Your task to perform on an android device: toggle javascript in the chrome app Image 0: 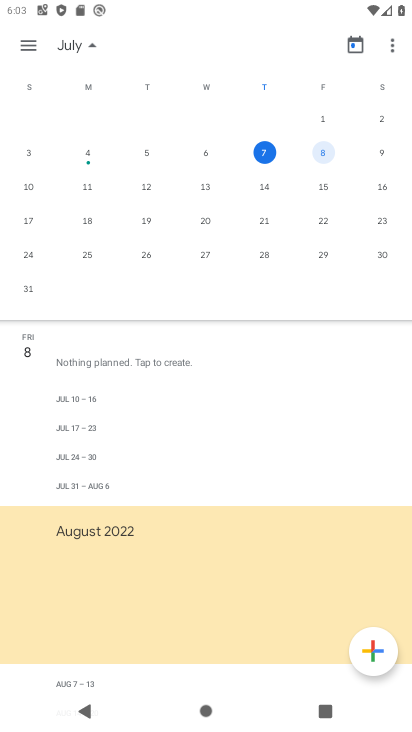
Step 0: press back button
Your task to perform on an android device: toggle javascript in the chrome app Image 1: 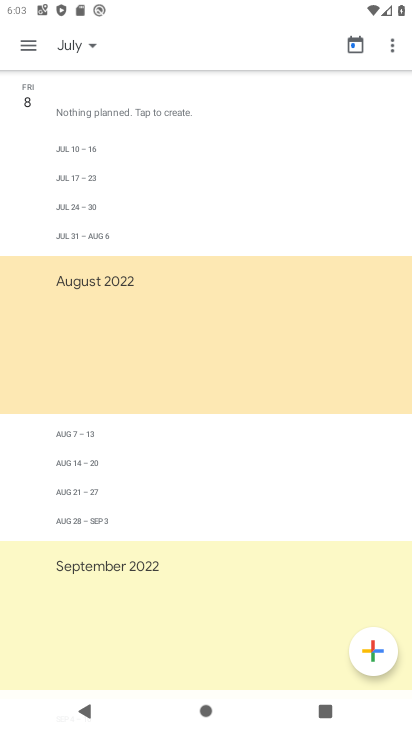
Step 1: press back button
Your task to perform on an android device: toggle javascript in the chrome app Image 2: 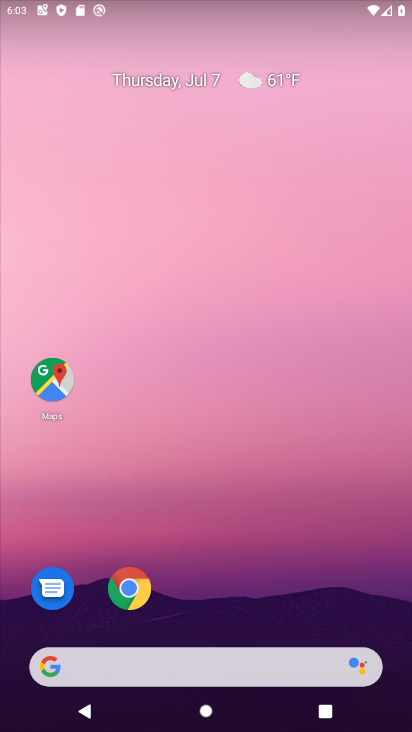
Step 2: click (144, 587)
Your task to perform on an android device: toggle javascript in the chrome app Image 3: 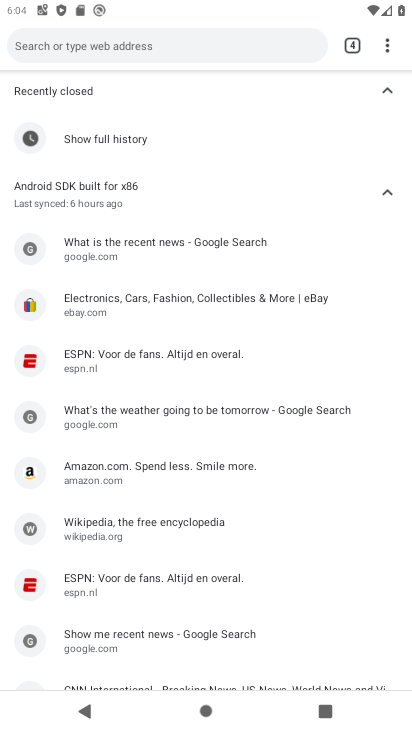
Step 3: drag from (390, 30) to (223, 380)
Your task to perform on an android device: toggle javascript in the chrome app Image 4: 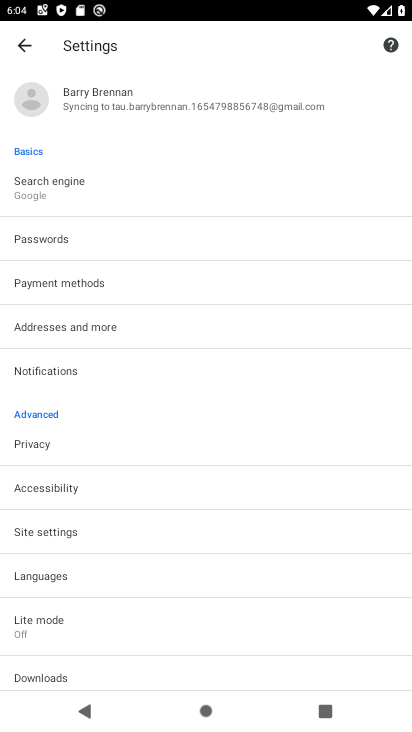
Step 4: click (79, 536)
Your task to perform on an android device: toggle javascript in the chrome app Image 5: 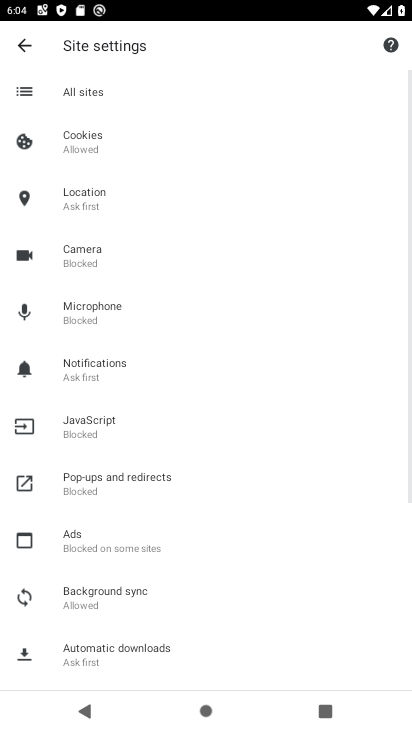
Step 5: click (102, 411)
Your task to perform on an android device: toggle javascript in the chrome app Image 6: 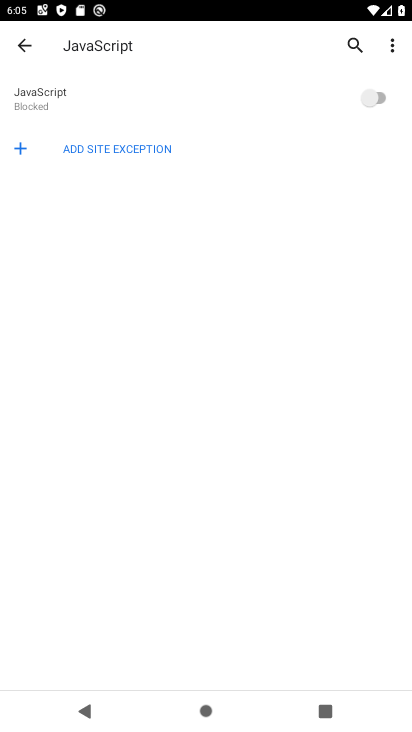
Step 6: click (368, 108)
Your task to perform on an android device: toggle javascript in the chrome app Image 7: 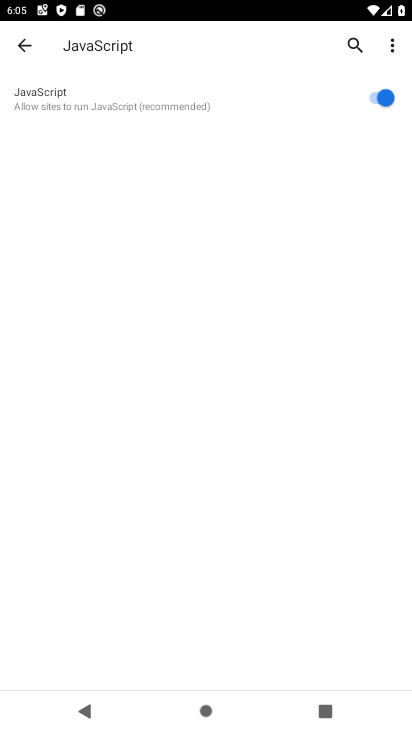
Step 7: task complete